Your task to perform on an android device: allow cookies in the chrome app Image 0: 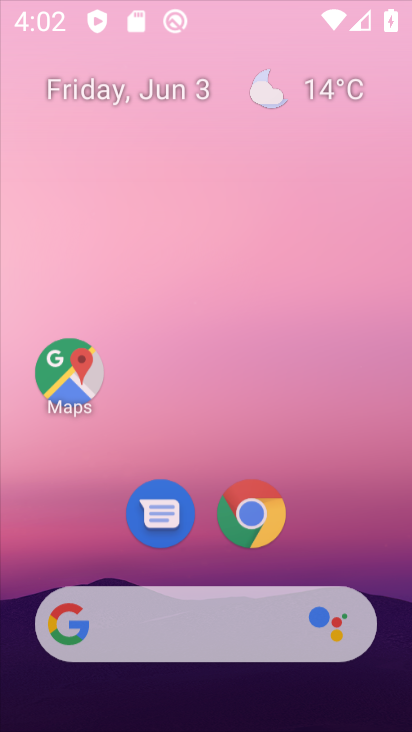
Step 0: click (394, 18)
Your task to perform on an android device: allow cookies in the chrome app Image 1: 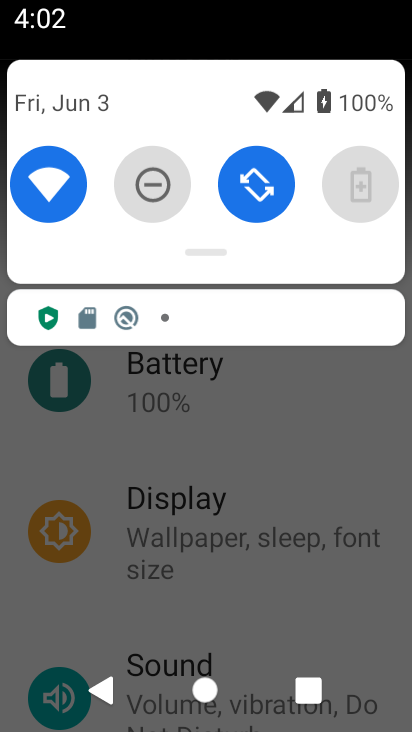
Step 1: press home button
Your task to perform on an android device: allow cookies in the chrome app Image 2: 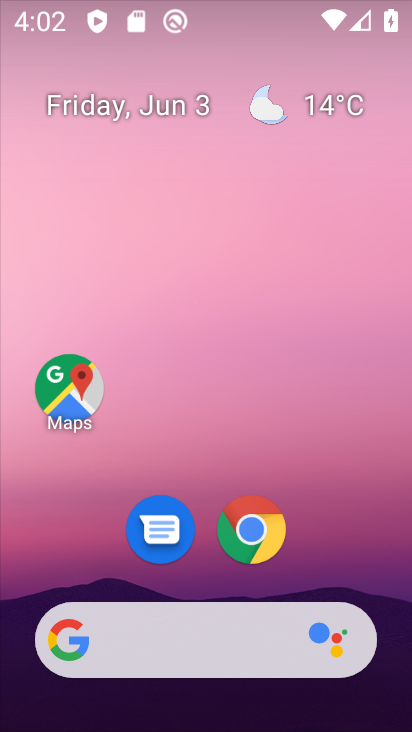
Step 2: drag from (357, 511) to (410, 92)
Your task to perform on an android device: allow cookies in the chrome app Image 3: 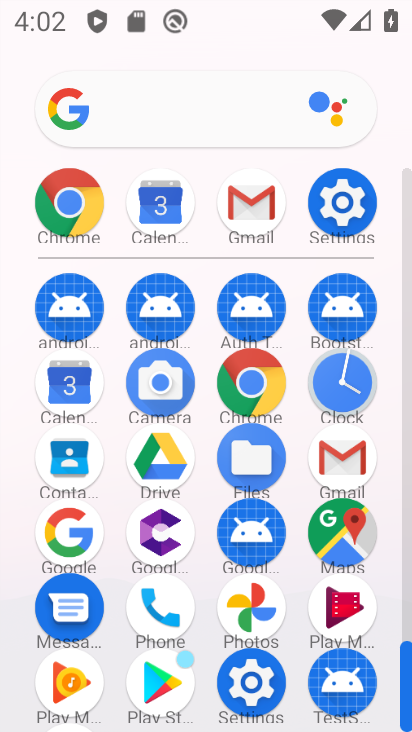
Step 3: click (65, 226)
Your task to perform on an android device: allow cookies in the chrome app Image 4: 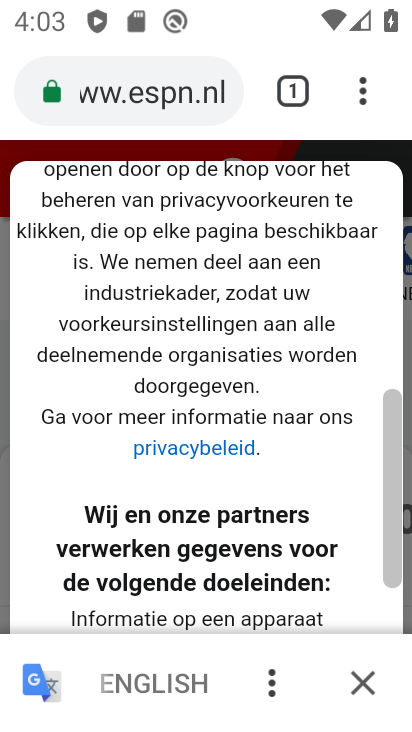
Step 4: drag from (377, 78) to (141, 548)
Your task to perform on an android device: allow cookies in the chrome app Image 5: 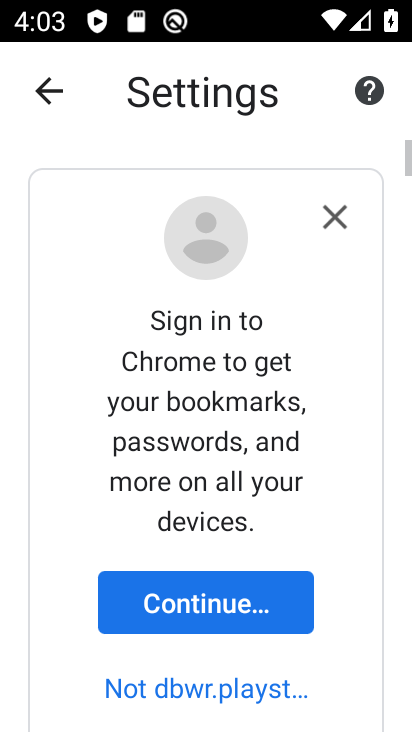
Step 5: drag from (231, 531) to (245, 122)
Your task to perform on an android device: allow cookies in the chrome app Image 6: 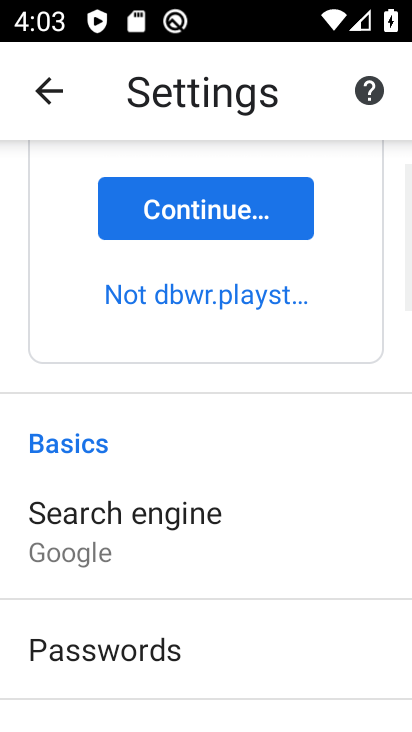
Step 6: drag from (228, 568) to (270, 156)
Your task to perform on an android device: allow cookies in the chrome app Image 7: 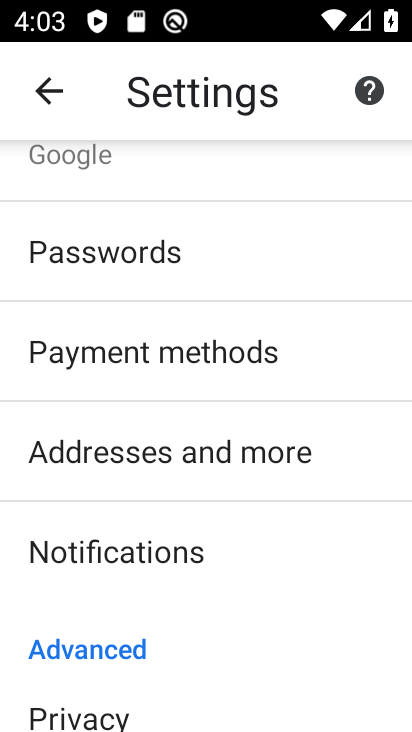
Step 7: drag from (210, 594) to (289, 325)
Your task to perform on an android device: allow cookies in the chrome app Image 8: 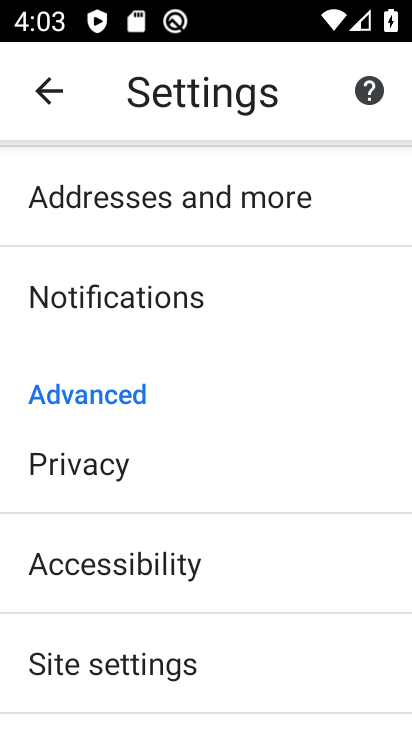
Step 8: click (168, 684)
Your task to perform on an android device: allow cookies in the chrome app Image 9: 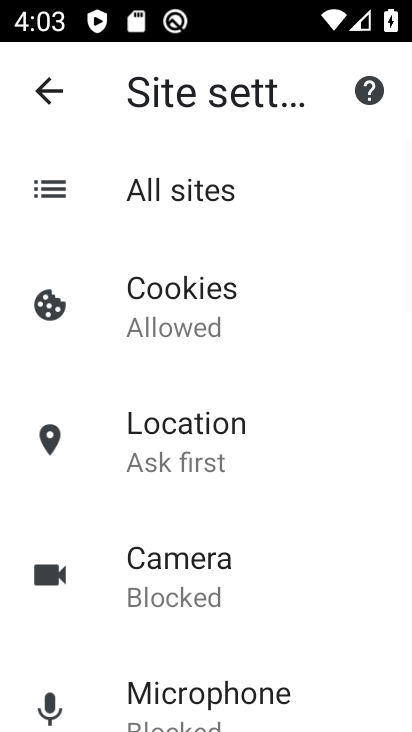
Step 9: click (165, 330)
Your task to perform on an android device: allow cookies in the chrome app Image 10: 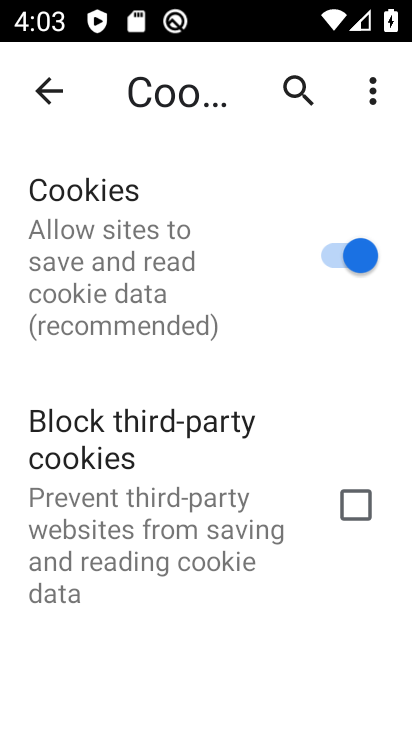
Step 10: task complete